Your task to perform on an android device: turn on location history Image 0: 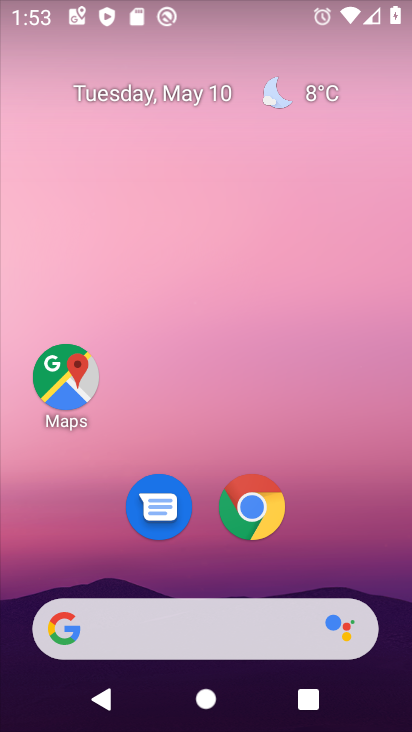
Step 0: drag from (219, 722) to (222, 183)
Your task to perform on an android device: turn on location history Image 1: 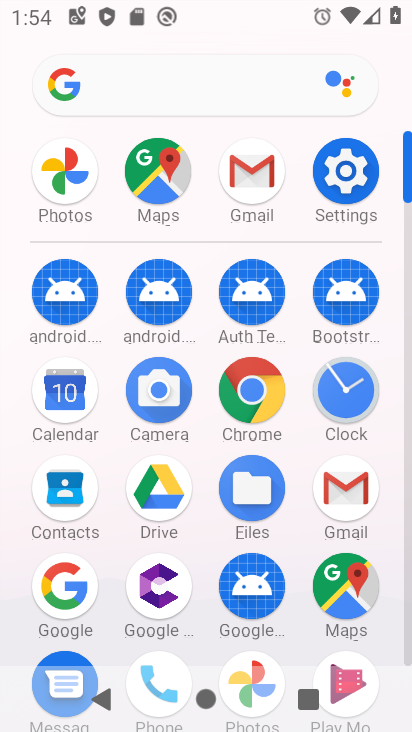
Step 1: click (349, 178)
Your task to perform on an android device: turn on location history Image 2: 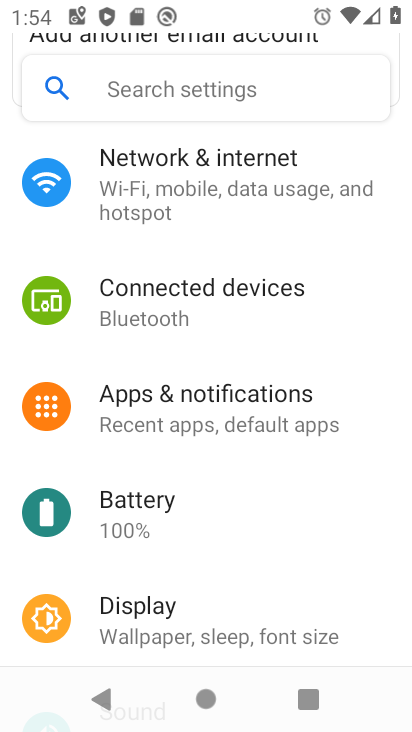
Step 2: drag from (174, 572) to (201, 235)
Your task to perform on an android device: turn on location history Image 3: 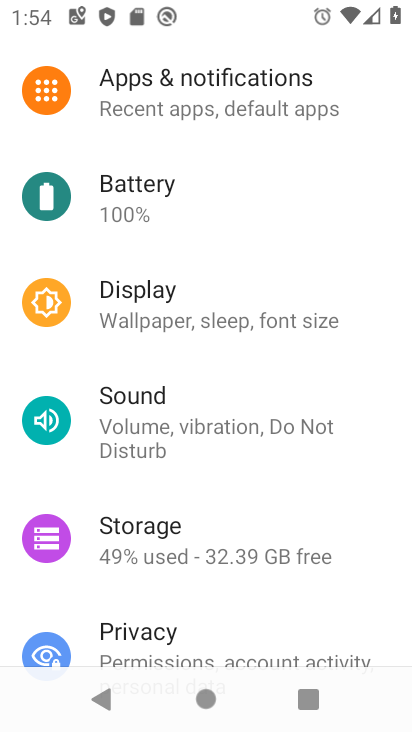
Step 3: drag from (196, 615) to (187, 175)
Your task to perform on an android device: turn on location history Image 4: 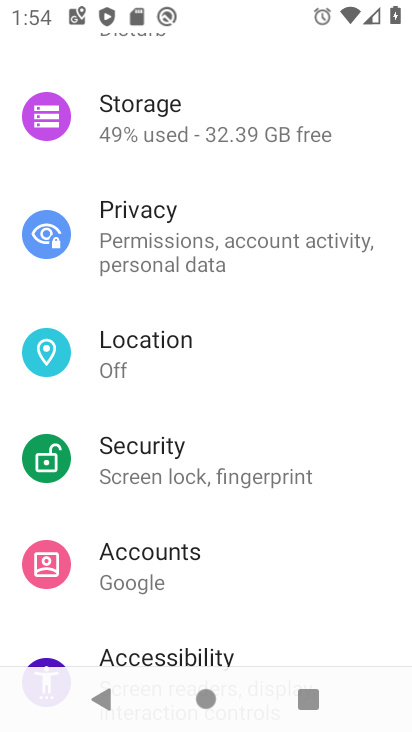
Step 4: drag from (209, 578) to (205, 203)
Your task to perform on an android device: turn on location history Image 5: 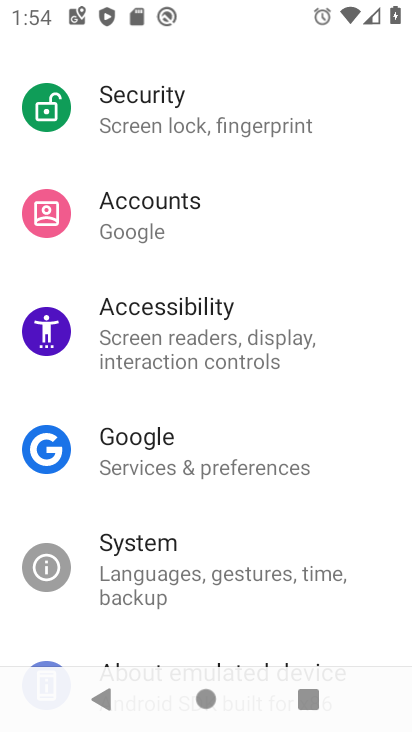
Step 5: drag from (238, 141) to (235, 535)
Your task to perform on an android device: turn on location history Image 6: 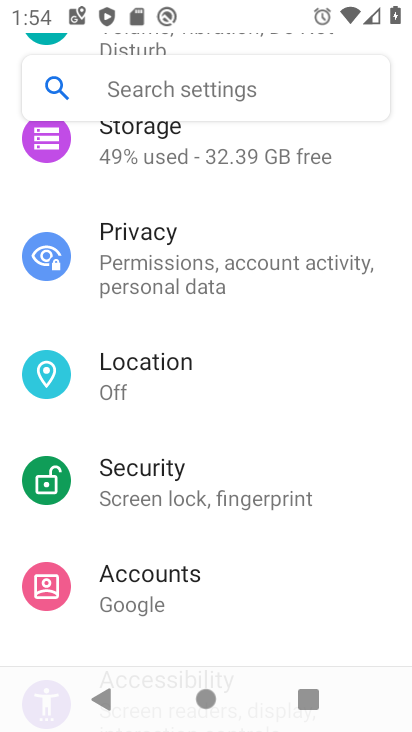
Step 6: click (122, 375)
Your task to perform on an android device: turn on location history Image 7: 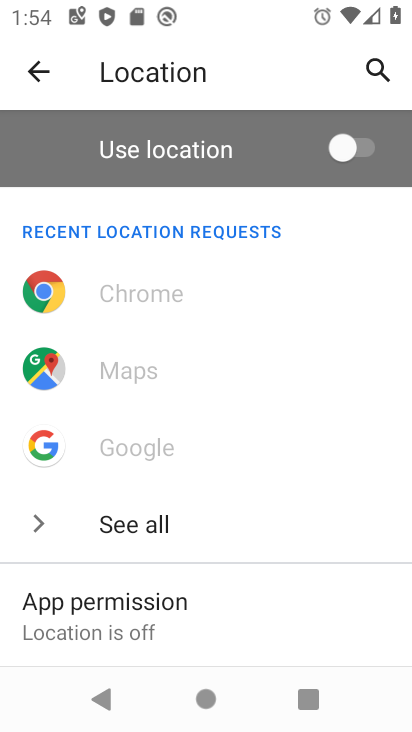
Step 7: drag from (176, 619) to (191, 353)
Your task to perform on an android device: turn on location history Image 8: 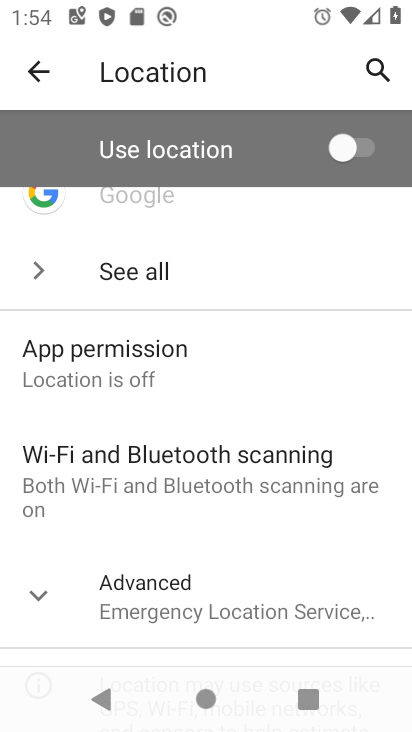
Step 8: click (161, 606)
Your task to perform on an android device: turn on location history Image 9: 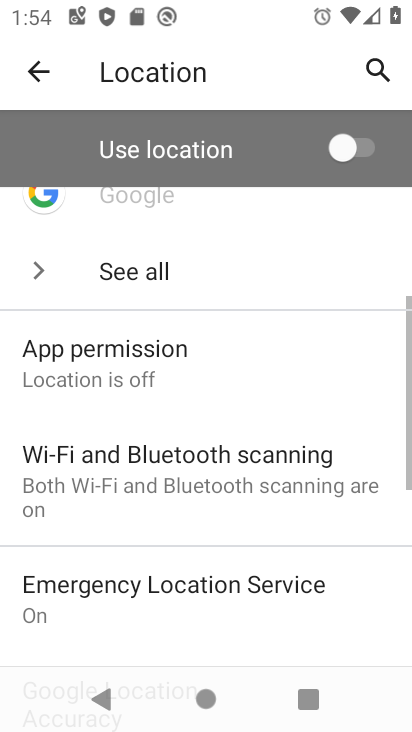
Step 9: drag from (213, 610) to (218, 326)
Your task to perform on an android device: turn on location history Image 10: 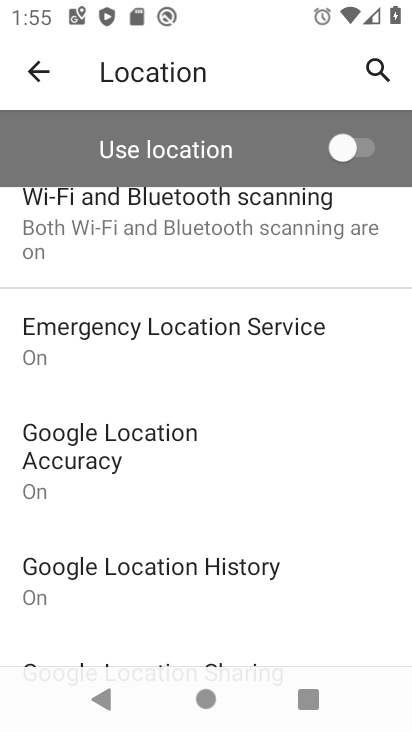
Step 10: click (135, 569)
Your task to perform on an android device: turn on location history Image 11: 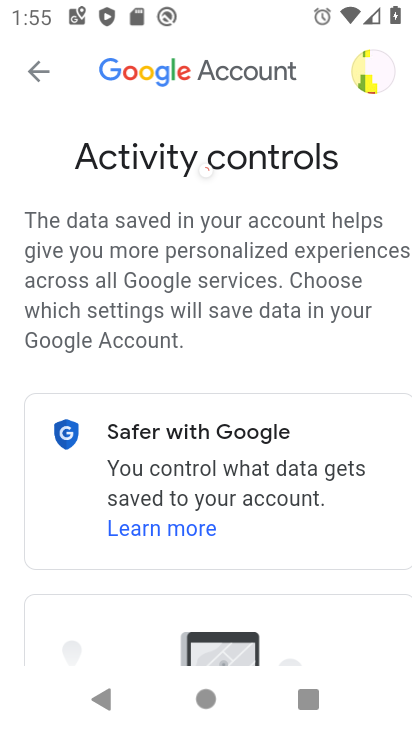
Step 11: drag from (241, 601) to (239, 236)
Your task to perform on an android device: turn on location history Image 12: 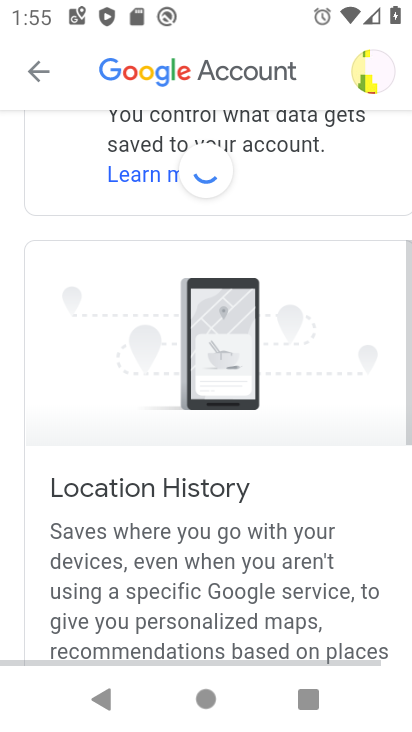
Step 12: drag from (228, 607) to (227, 287)
Your task to perform on an android device: turn on location history Image 13: 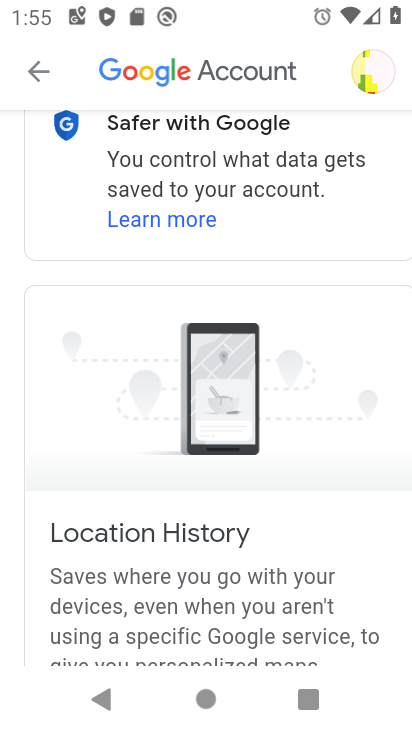
Step 13: drag from (247, 588) to (257, 155)
Your task to perform on an android device: turn on location history Image 14: 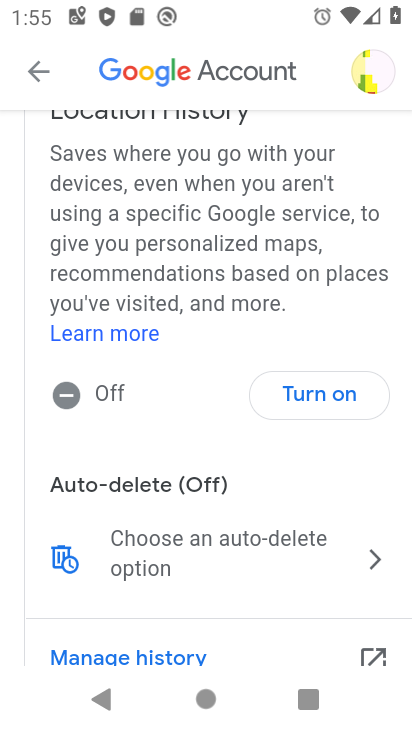
Step 14: click (314, 396)
Your task to perform on an android device: turn on location history Image 15: 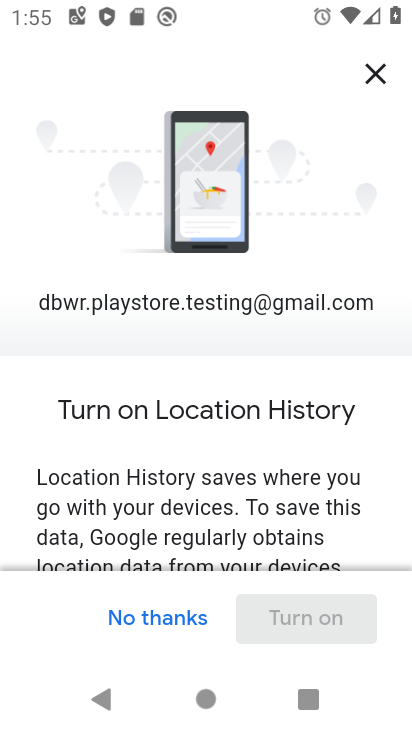
Step 15: drag from (205, 523) to (205, 192)
Your task to perform on an android device: turn on location history Image 16: 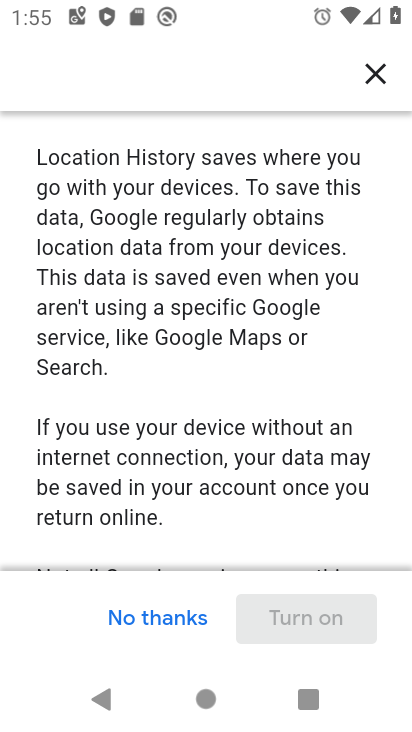
Step 16: drag from (221, 529) to (228, 80)
Your task to perform on an android device: turn on location history Image 17: 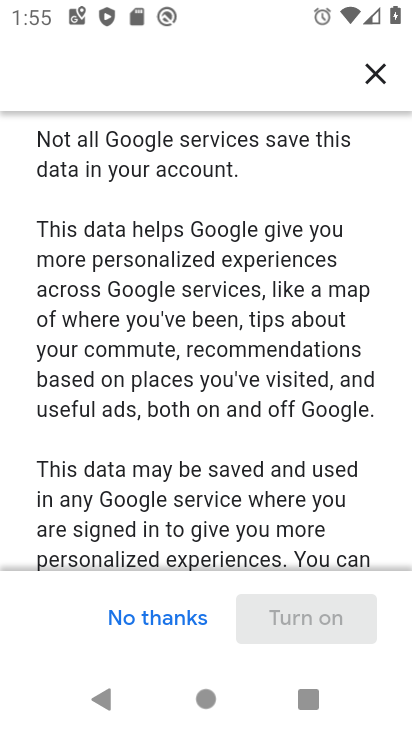
Step 17: drag from (261, 531) to (273, 125)
Your task to perform on an android device: turn on location history Image 18: 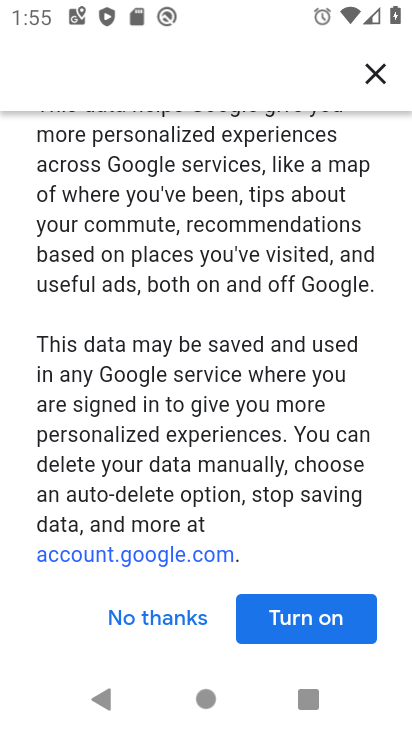
Step 18: click (302, 616)
Your task to perform on an android device: turn on location history Image 19: 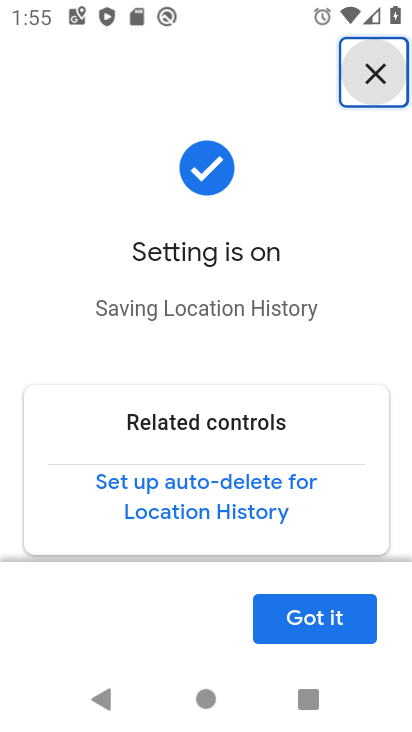
Step 19: click (291, 611)
Your task to perform on an android device: turn on location history Image 20: 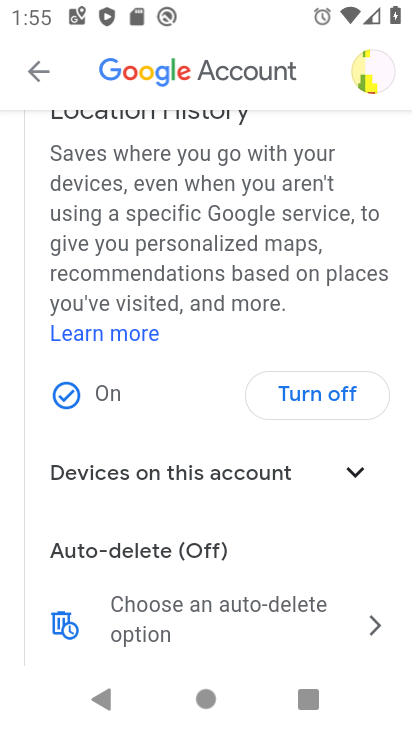
Step 20: task complete